Your task to perform on an android device: Open Google Chrome and click the shortcut for Amazon.com Image 0: 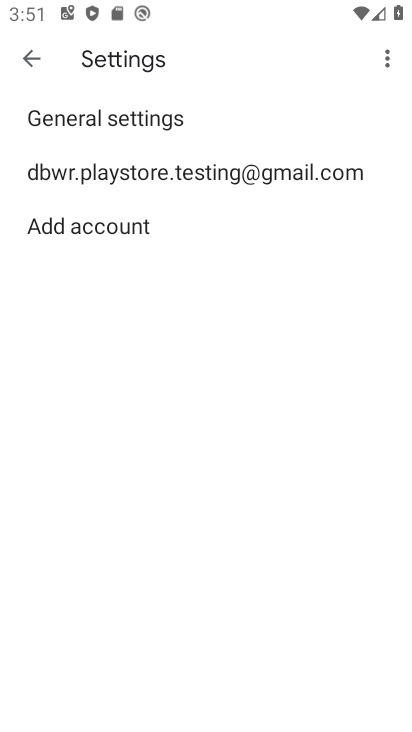
Step 0: press home button
Your task to perform on an android device: Open Google Chrome and click the shortcut for Amazon.com Image 1: 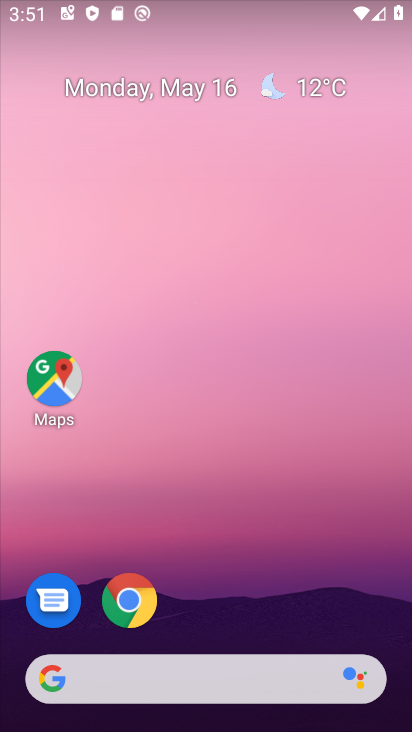
Step 1: click (137, 600)
Your task to perform on an android device: Open Google Chrome and click the shortcut for Amazon.com Image 2: 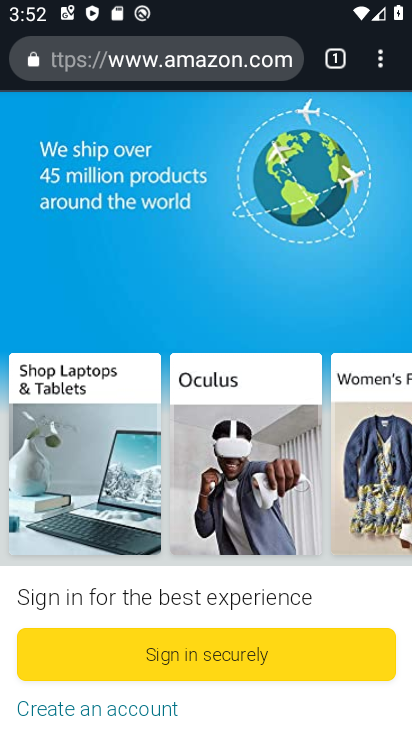
Step 2: task complete